Your task to perform on an android device: What's on my calendar today? Image 0: 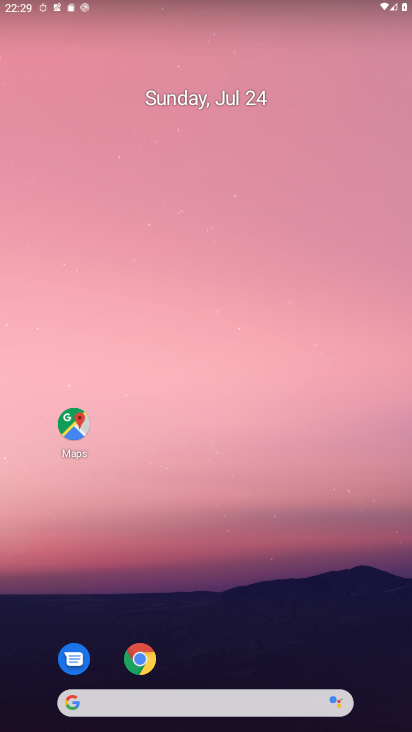
Step 0: drag from (217, 729) to (217, 5)
Your task to perform on an android device: What's on my calendar today? Image 1: 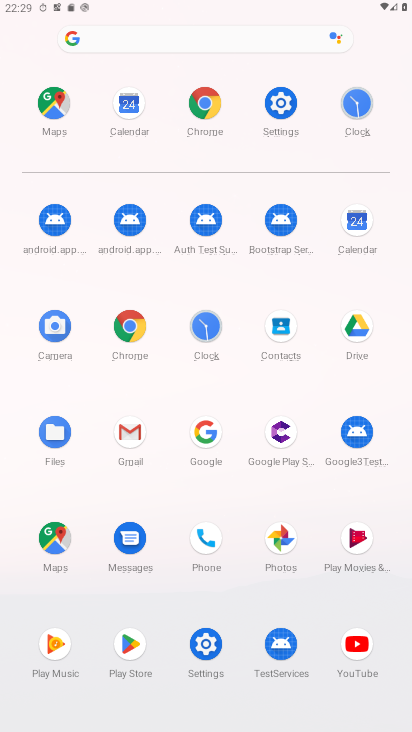
Step 1: click (351, 227)
Your task to perform on an android device: What's on my calendar today? Image 2: 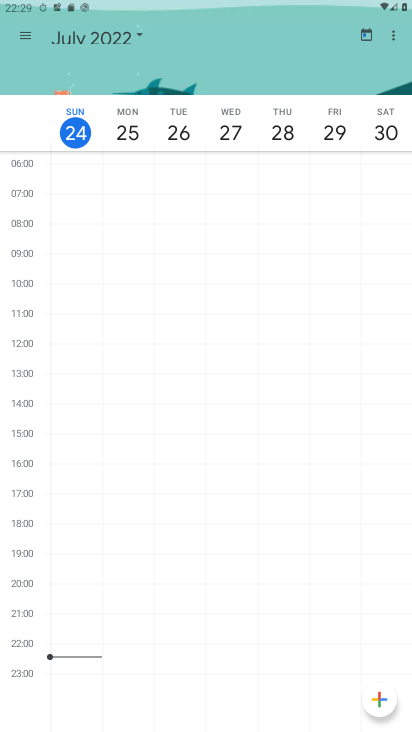
Step 2: click (67, 133)
Your task to perform on an android device: What's on my calendar today? Image 3: 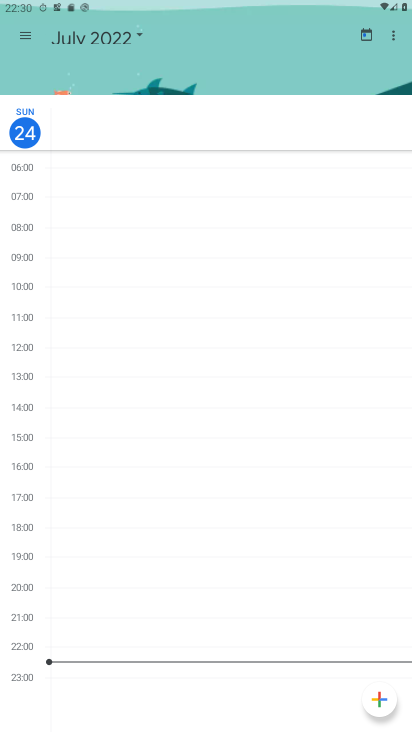
Step 3: click (26, 34)
Your task to perform on an android device: What's on my calendar today? Image 4: 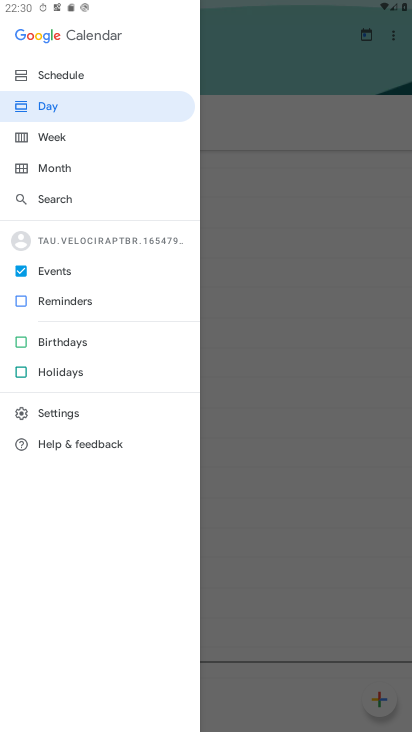
Step 4: click (22, 296)
Your task to perform on an android device: What's on my calendar today? Image 5: 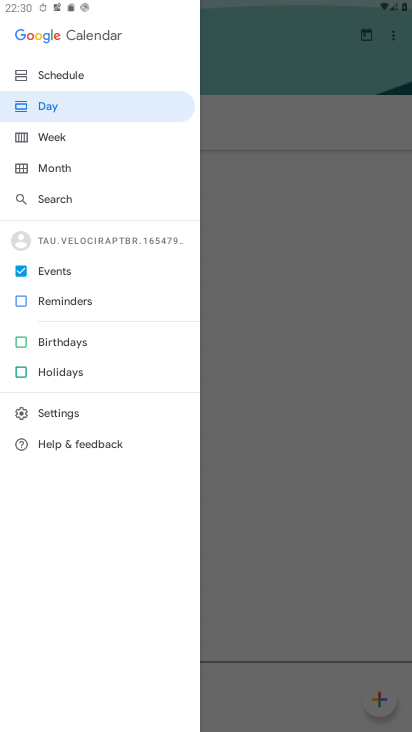
Step 5: click (22, 296)
Your task to perform on an android device: What's on my calendar today? Image 6: 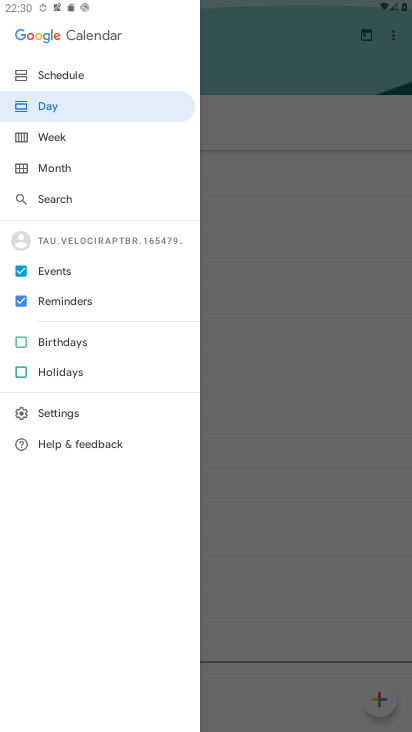
Step 6: click (22, 335)
Your task to perform on an android device: What's on my calendar today? Image 7: 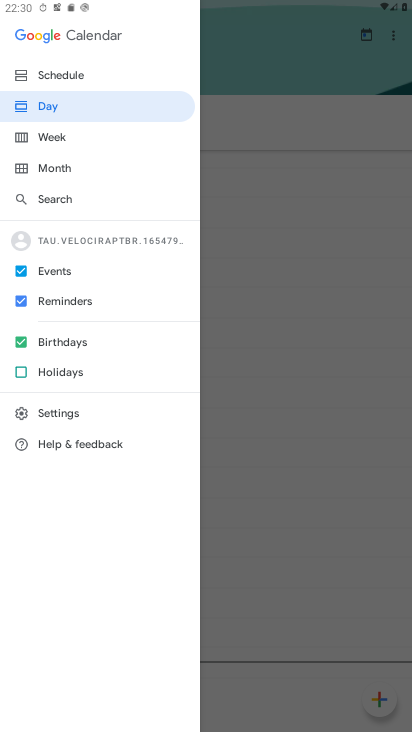
Step 7: click (21, 375)
Your task to perform on an android device: What's on my calendar today? Image 8: 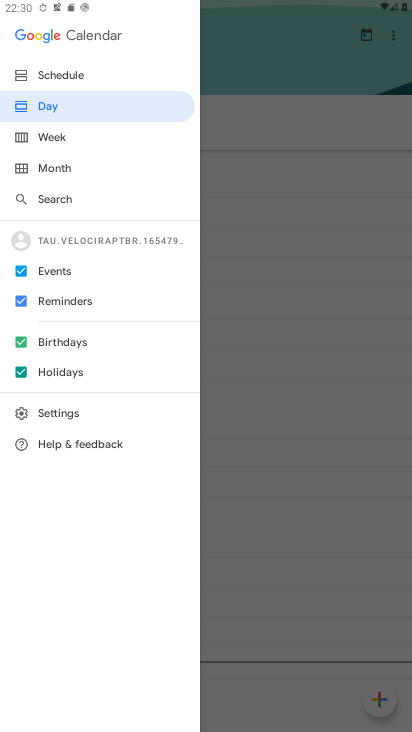
Step 8: click (78, 102)
Your task to perform on an android device: What's on my calendar today? Image 9: 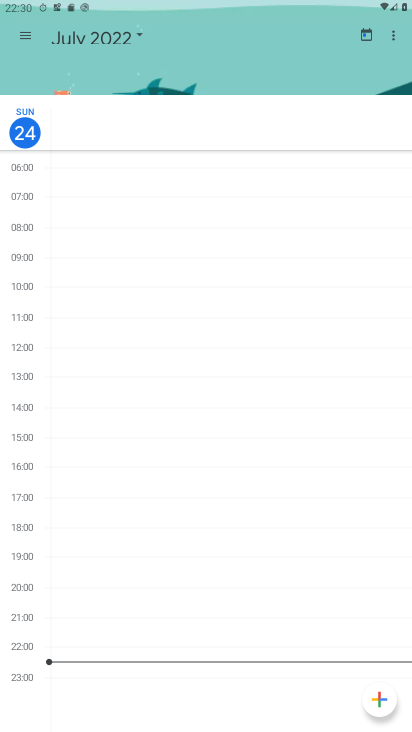
Step 9: task complete